Your task to perform on an android device: Go to battery settings Image 0: 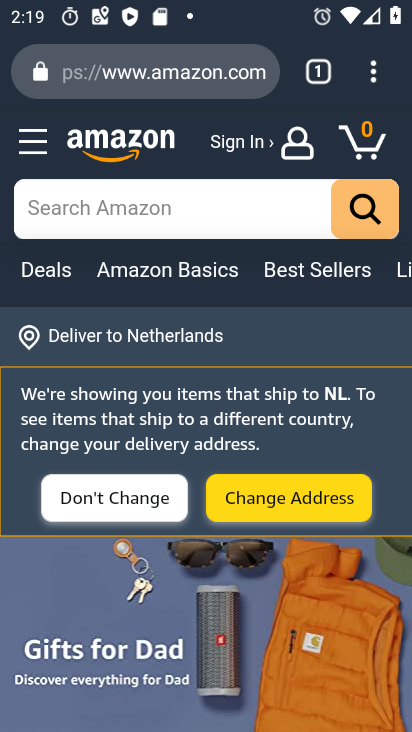
Step 0: press home button
Your task to perform on an android device: Go to battery settings Image 1: 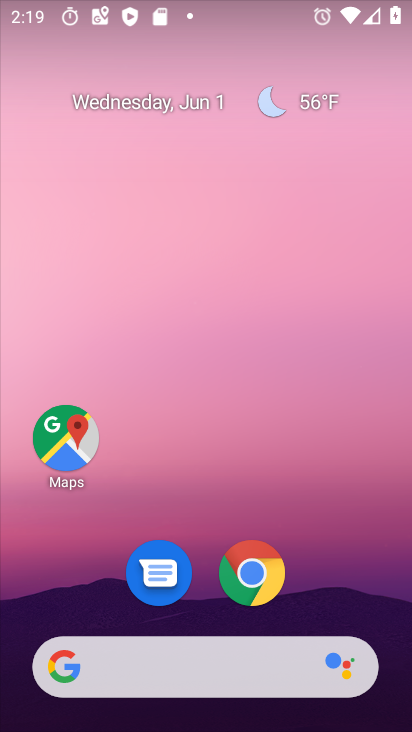
Step 1: drag from (358, 526) to (384, 0)
Your task to perform on an android device: Go to battery settings Image 2: 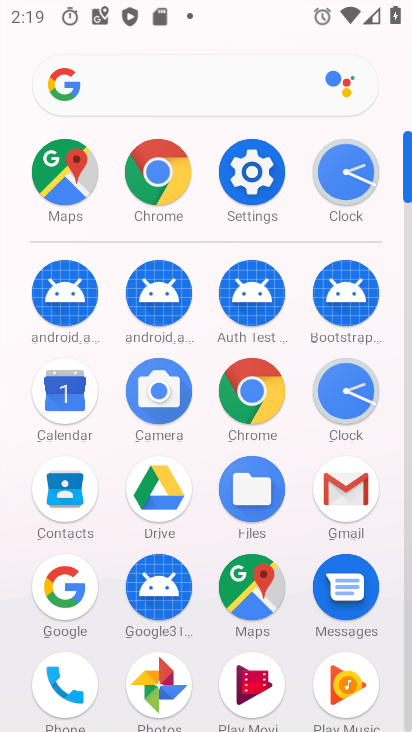
Step 2: click (254, 176)
Your task to perform on an android device: Go to battery settings Image 3: 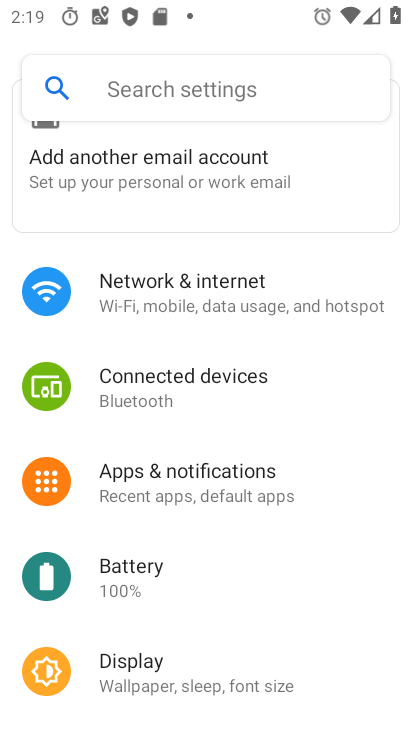
Step 3: click (147, 595)
Your task to perform on an android device: Go to battery settings Image 4: 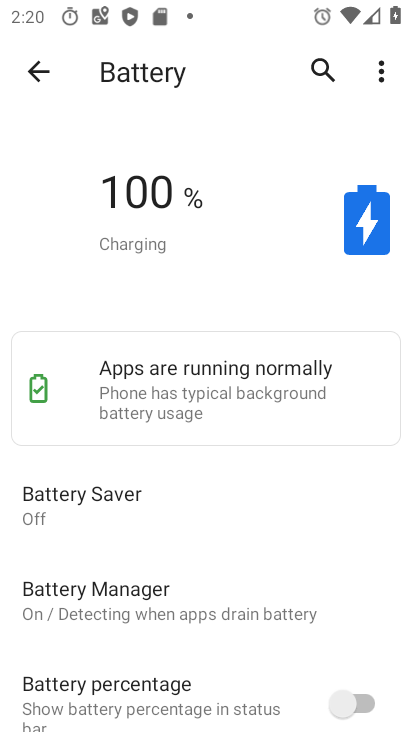
Step 4: task complete